Your task to perform on an android device: star an email in the gmail app Image 0: 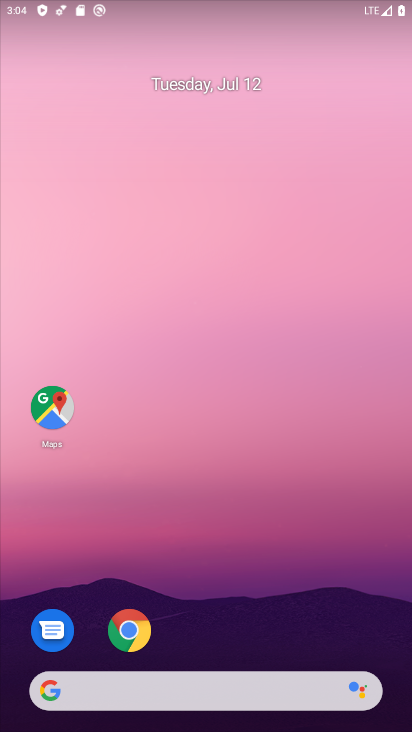
Step 0: drag from (215, 623) to (222, 1)
Your task to perform on an android device: star an email in the gmail app Image 1: 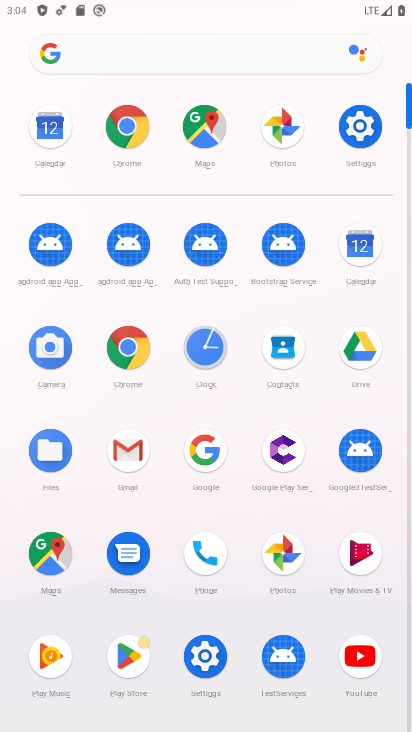
Step 1: click (120, 454)
Your task to perform on an android device: star an email in the gmail app Image 2: 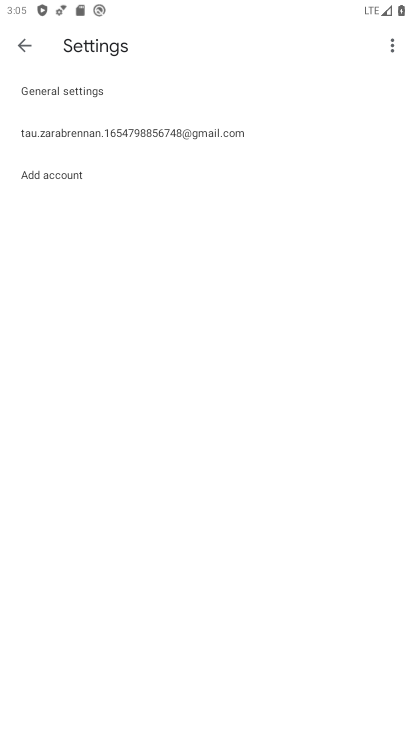
Step 2: click (27, 41)
Your task to perform on an android device: star an email in the gmail app Image 3: 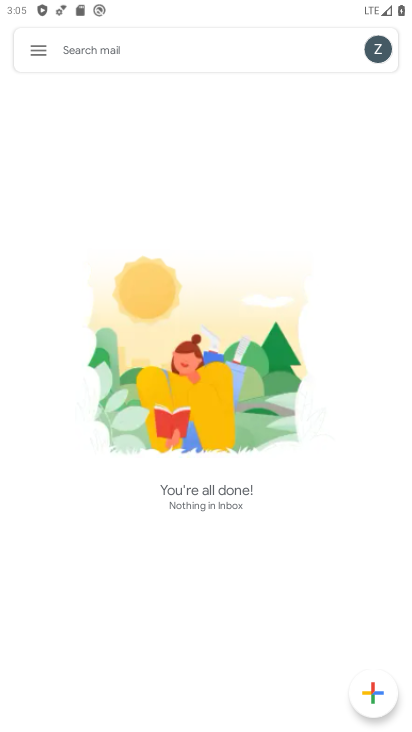
Step 3: task complete